Your task to perform on an android device: Open settings Image 0: 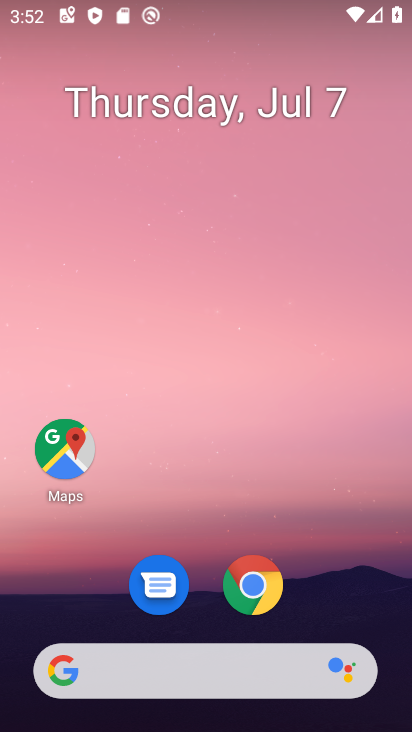
Step 0: drag from (273, 503) to (261, 27)
Your task to perform on an android device: Open settings Image 1: 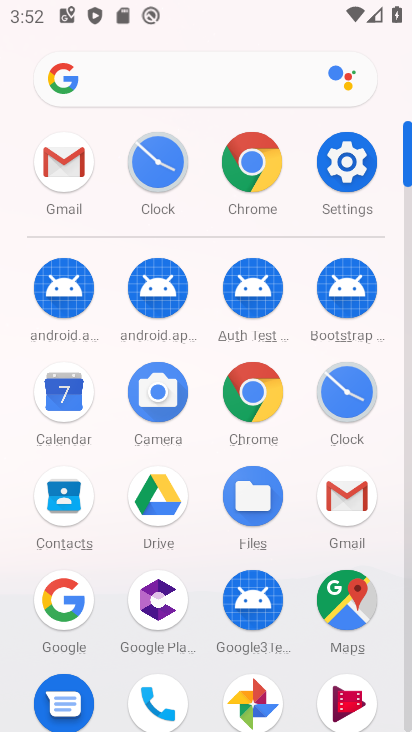
Step 1: click (341, 168)
Your task to perform on an android device: Open settings Image 2: 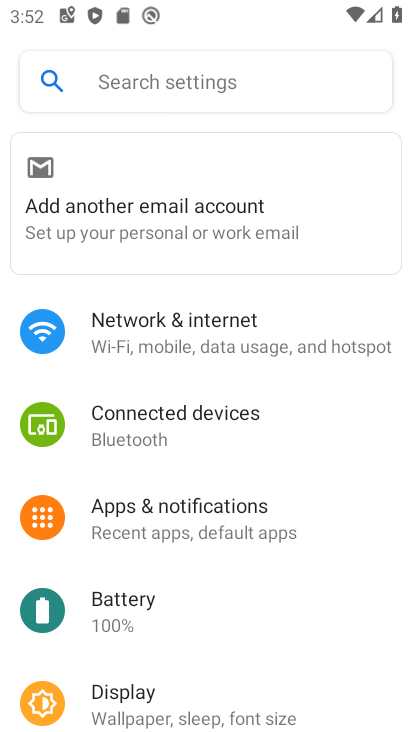
Step 2: task complete